Your task to perform on an android device: create a new album in the google photos Image 0: 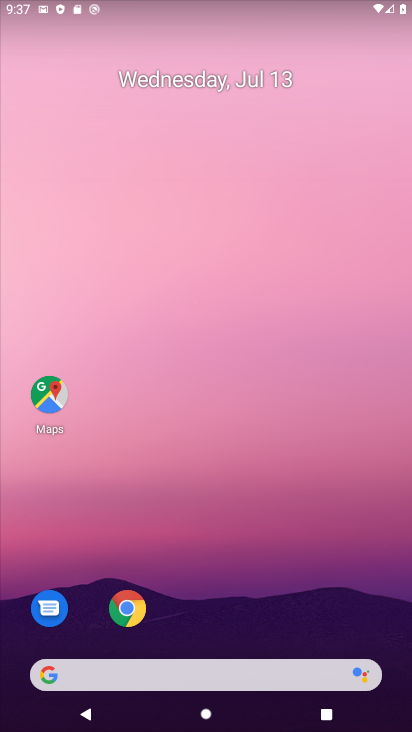
Step 0: drag from (91, 478) to (185, 176)
Your task to perform on an android device: create a new album in the google photos Image 1: 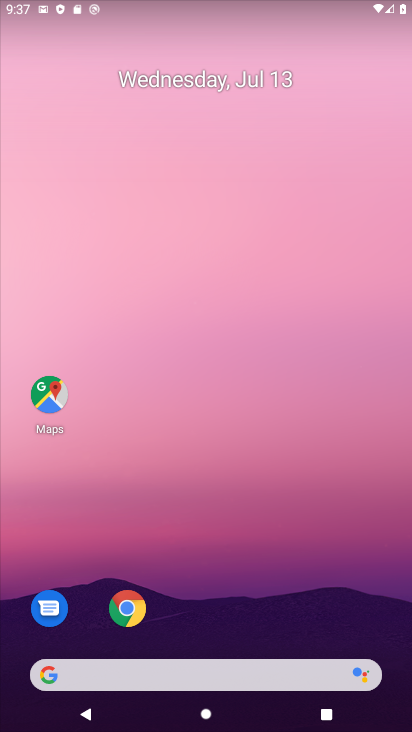
Step 1: drag from (11, 625) to (201, 144)
Your task to perform on an android device: create a new album in the google photos Image 2: 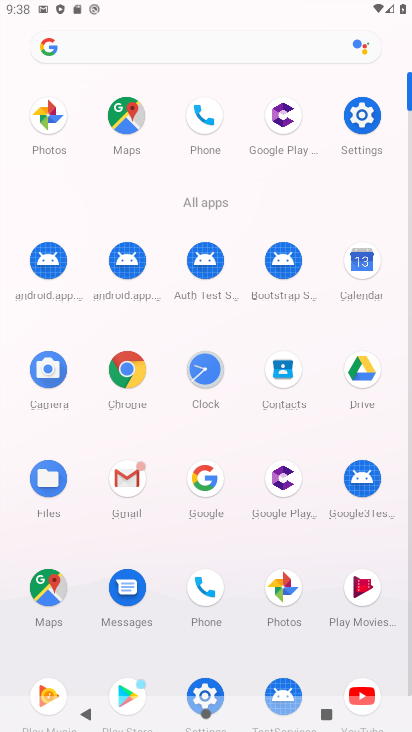
Step 2: click (276, 599)
Your task to perform on an android device: create a new album in the google photos Image 3: 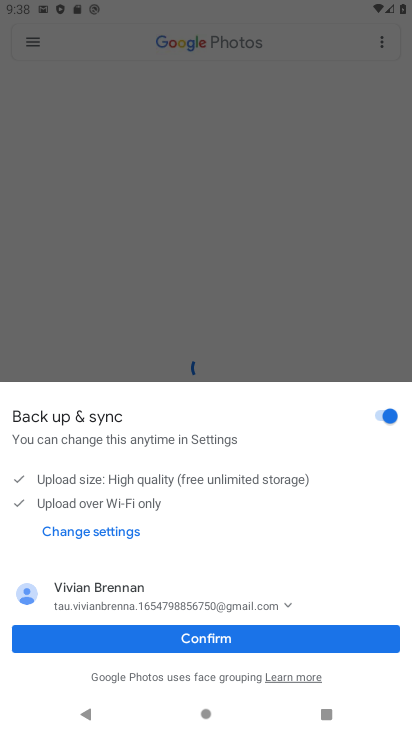
Step 3: click (253, 645)
Your task to perform on an android device: create a new album in the google photos Image 4: 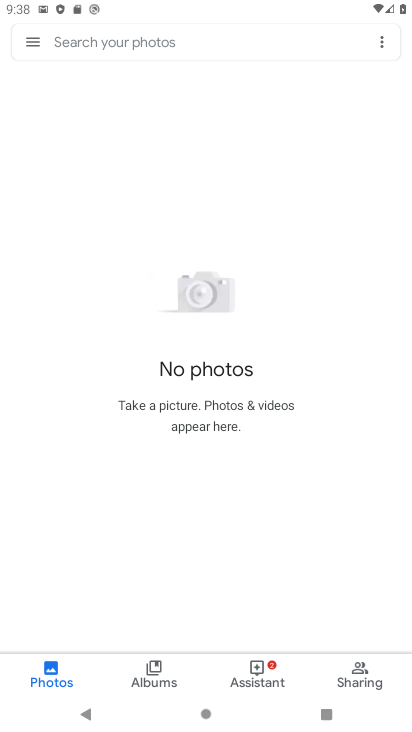
Step 4: click (157, 672)
Your task to perform on an android device: create a new album in the google photos Image 5: 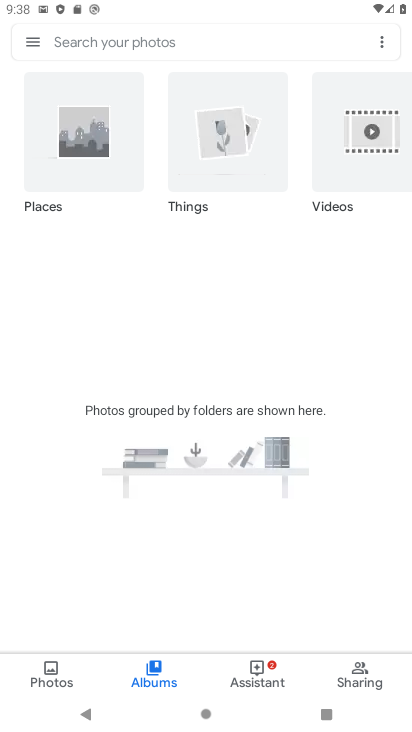
Step 5: click (34, 36)
Your task to perform on an android device: create a new album in the google photos Image 6: 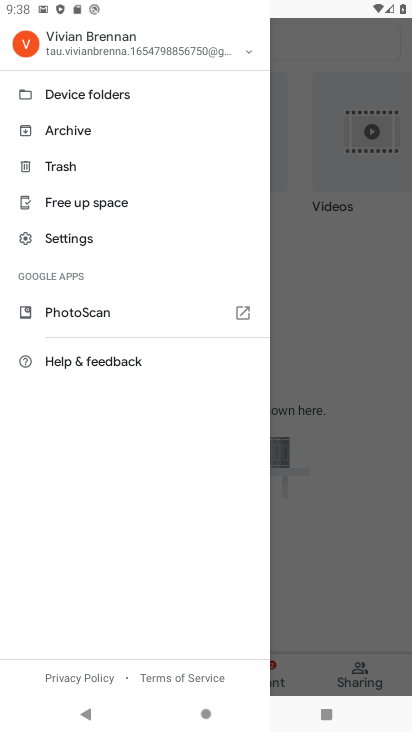
Step 6: click (306, 286)
Your task to perform on an android device: create a new album in the google photos Image 7: 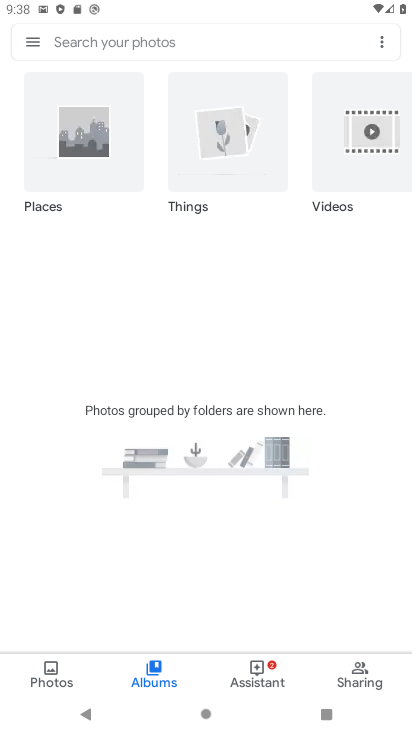
Step 7: click (377, 41)
Your task to perform on an android device: create a new album in the google photos Image 8: 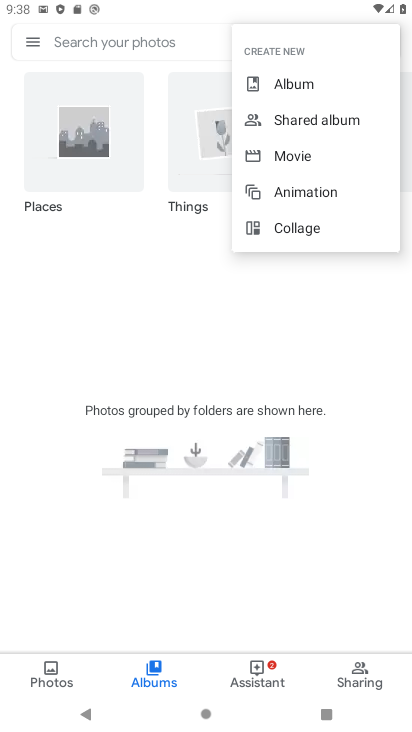
Step 8: click (324, 87)
Your task to perform on an android device: create a new album in the google photos Image 9: 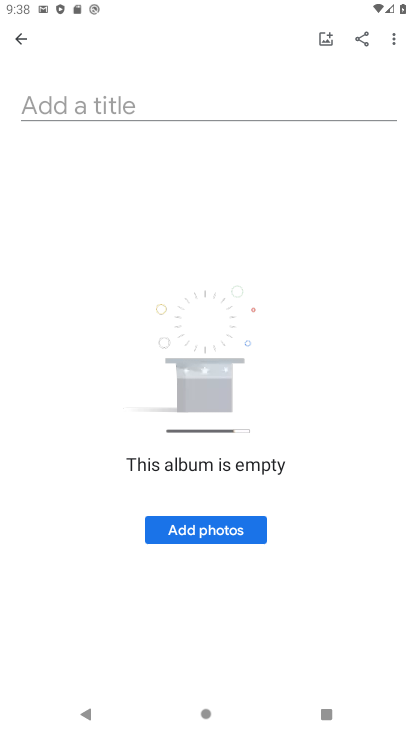
Step 9: click (157, 89)
Your task to perform on an android device: create a new album in the google photos Image 10: 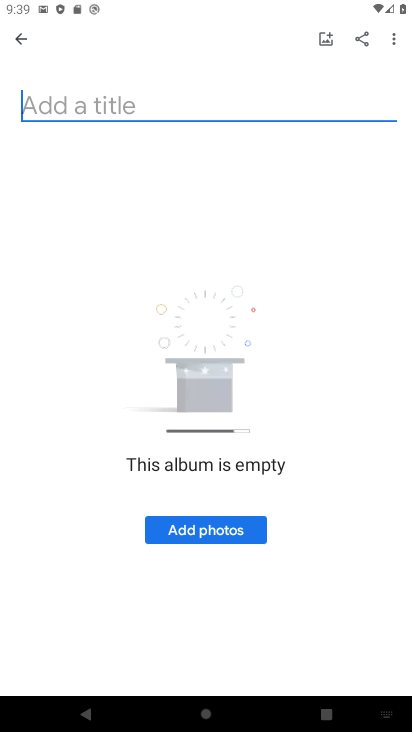
Step 10: type "jhkghjkjh"
Your task to perform on an android device: create a new album in the google photos Image 11: 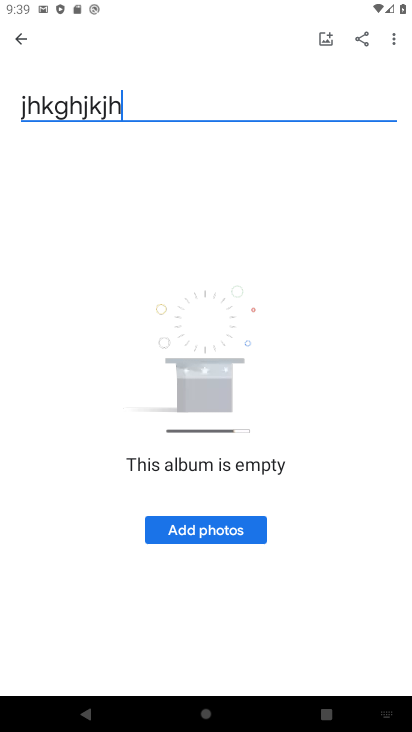
Step 11: type ""
Your task to perform on an android device: create a new album in the google photos Image 12: 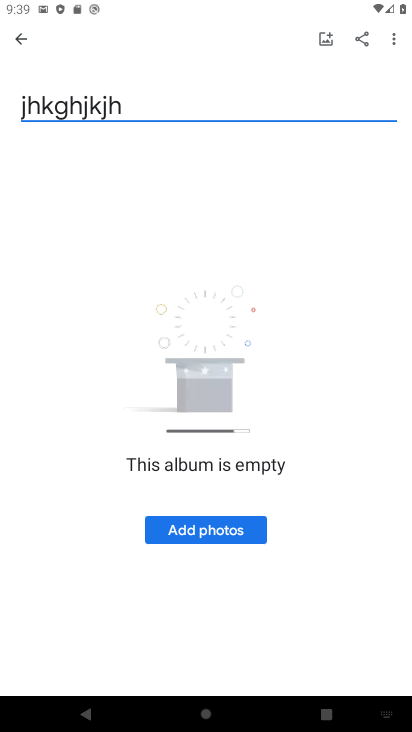
Step 12: click (396, 30)
Your task to perform on an android device: create a new album in the google photos Image 13: 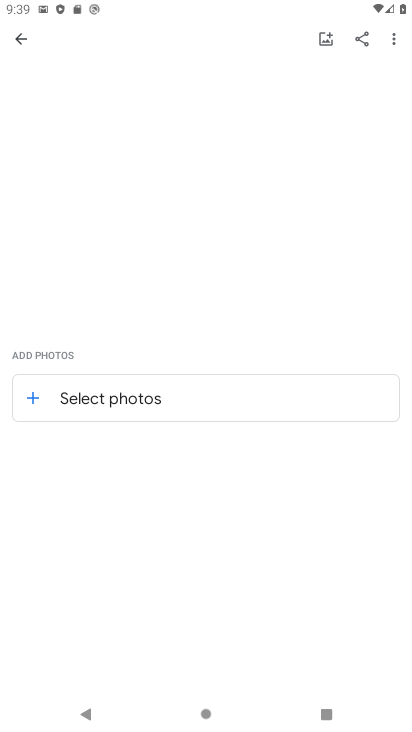
Step 13: click (202, 383)
Your task to perform on an android device: create a new album in the google photos Image 14: 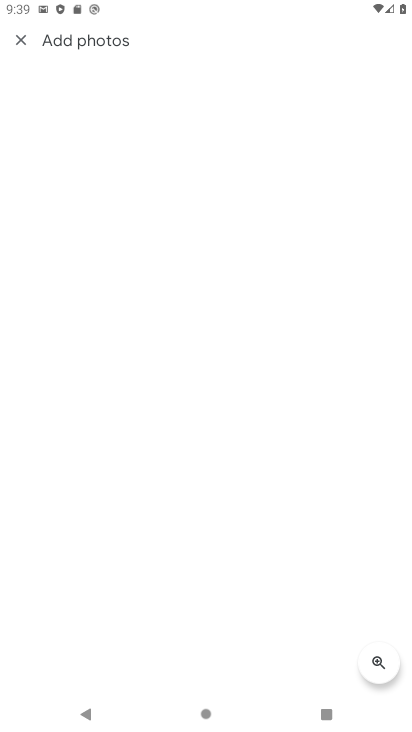
Step 14: task complete